Your task to perform on an android device: remove spam from my inbox in the gmail app Image 0: 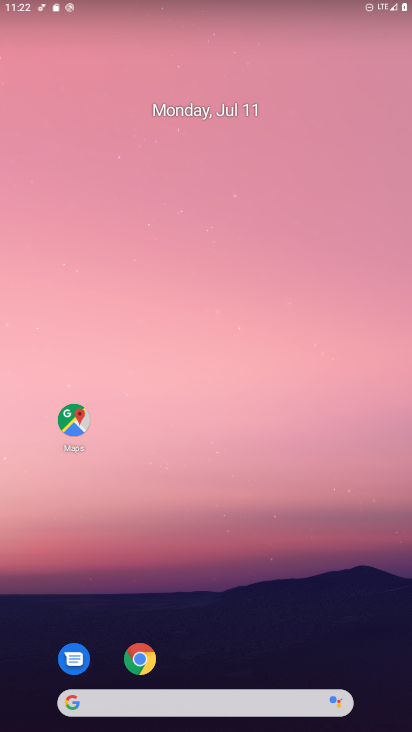
Step 0: drag from (360, 623) to (306, 175)
Your task to perform on an android device: remove spam from my inbox in the gmail app Image 1: 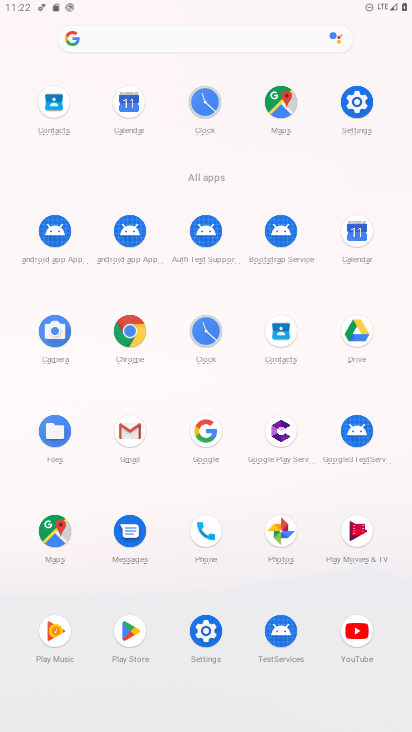
Step 1: click (125, 427)
Your task to perform on an android device: remove spam from my inbox in the gmail app Image 2: 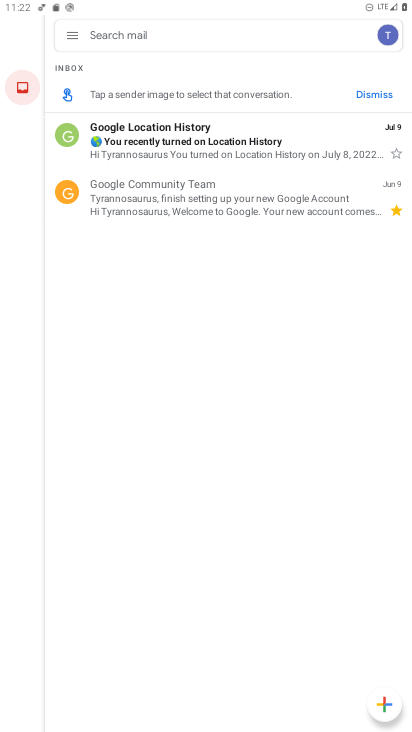
Step 2: click (68, 39)
Your task to perform on an android device: remove spam from my inbox in the gmail app Image 3: 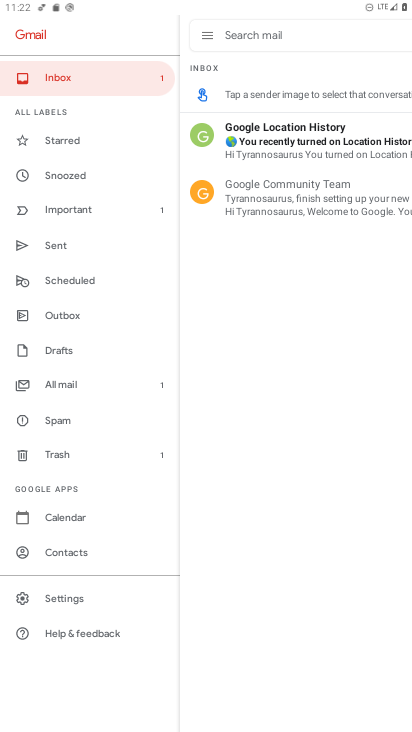
Step 3: click (89, 421)
Your task to perform on an android device: remove spam from my inbox in the gmail app Image 4: 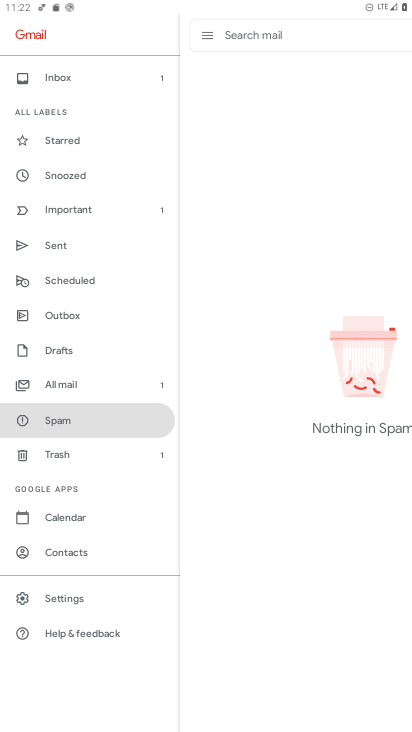
Step 4: task complete